Your task to perform on an android device: turn on showing notifications on the lock screen Image 0: 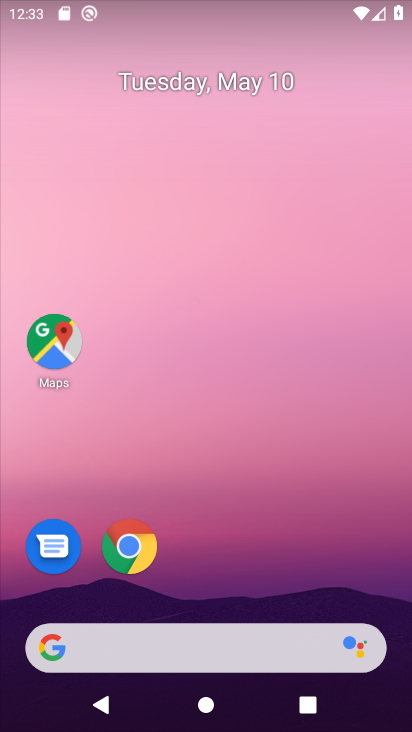
Step 0: click (299, 20)
Your task to perform on an android device: turn on showing notifications on the lock screen Image 1: 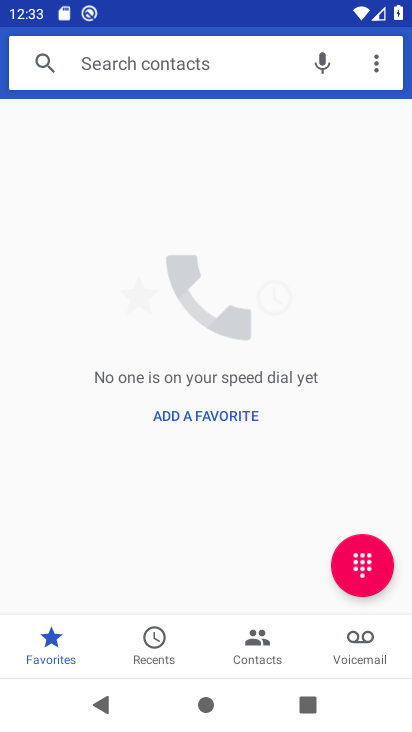
Step 1: press home button
Your task to perform on an android device: turn on showing notifications on the lock screen Image 2: 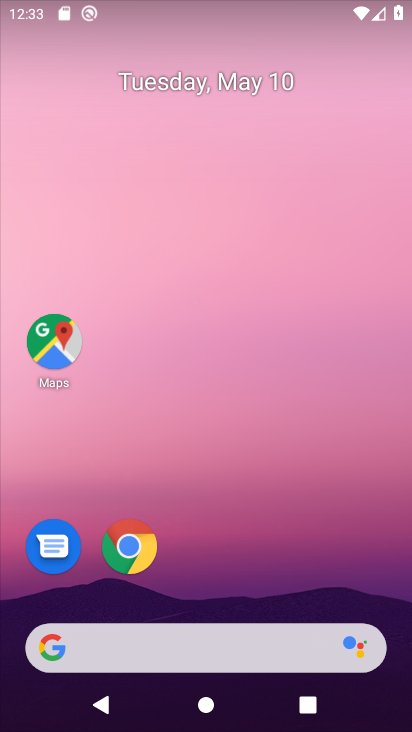
Step 2: drag from (250, 455) to (266, 175)
Your task to perform on an android device: turn on showing notifications on the lock screen Image 3: 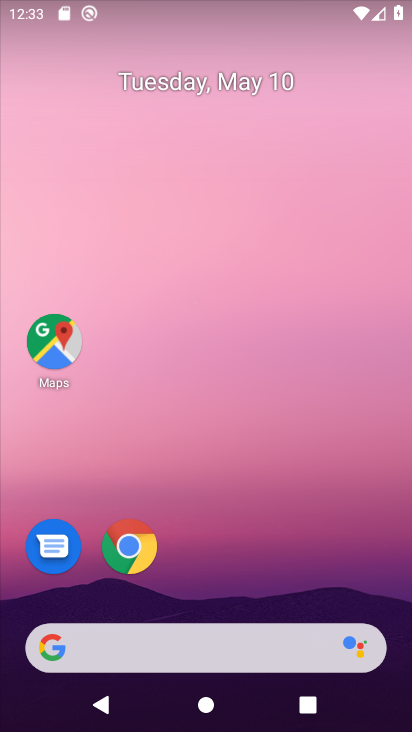
Step 3: drag from (283, 593) to (375, 92)
Your task to perform on an android device: turn on showing notifications on the lock screen Image 4: 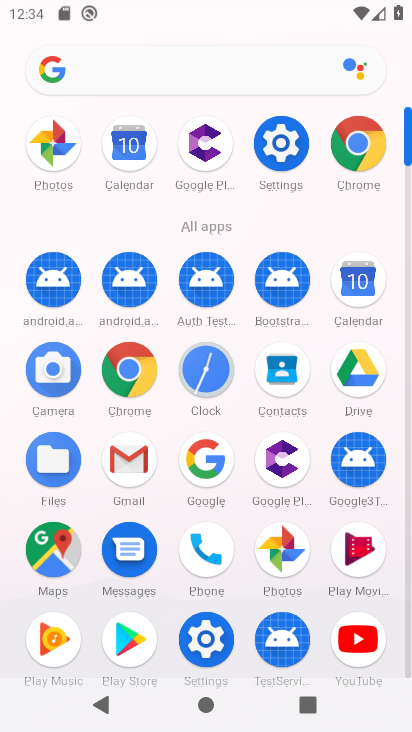
Step 4: click (202, 638)
Your task to perform on an android device: turn on showing notifications on the lock screen Image 5: 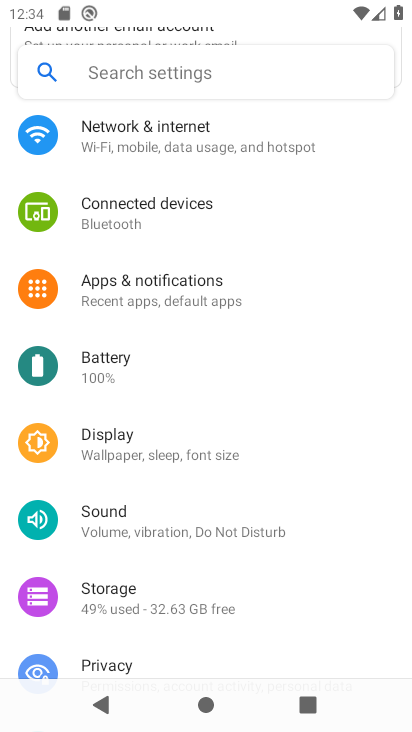
Step 5: click (261, 297)
Your task to perform on an android device: turn on showing notifications on the lock screen Image 6: 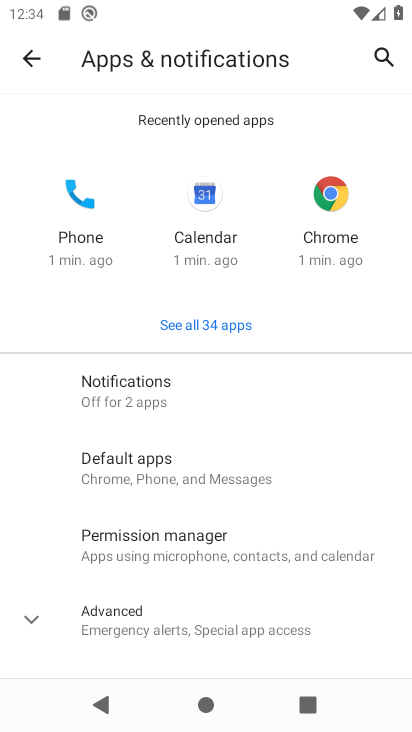
Step 6: click (201, 376)
Your task to perform on an android device: turn on showing notifications on the lock screen Image 7: 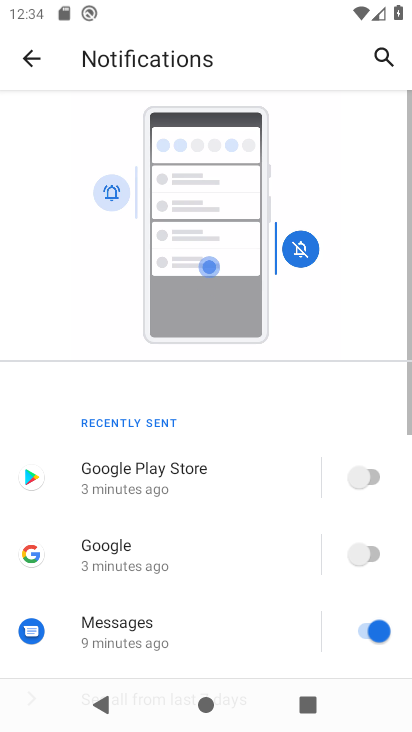
Step 7: drag from (204, 602) to (237, 150)
Your task to perform on an android device: turn on showing notifications on the lock screen Image 8: 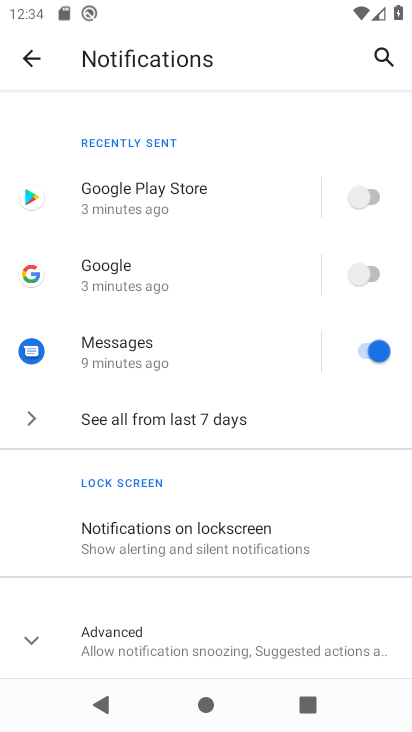
Step 8: click (186, 634)
Your task to perform on an android device: turn on showing notifications on the lock screen Image 9: 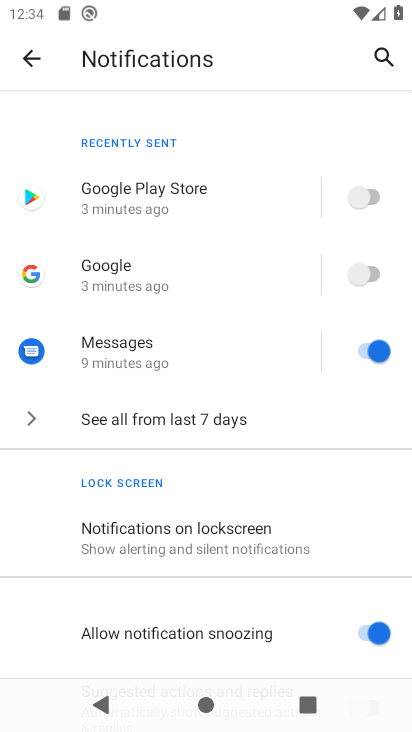
Step 9: drag from (221, 610) to (223, 267)
Your task to perform on an android device: turn on showing notifications on the lock screen Image 10: 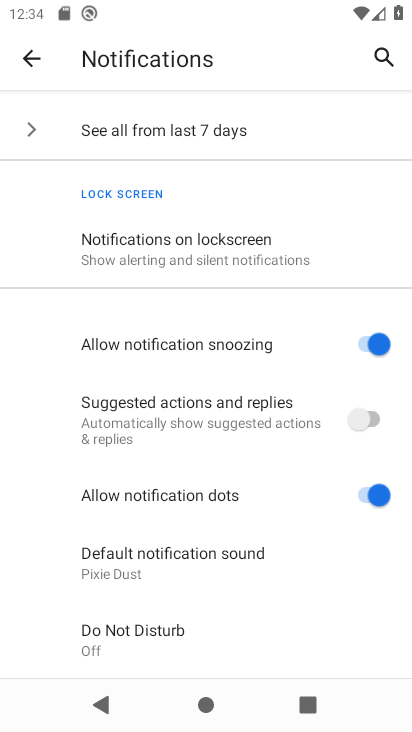
Step 10: click (246, 217)
Your task to perform on an android device: turn on showing notifications on the lock screen Image 11: 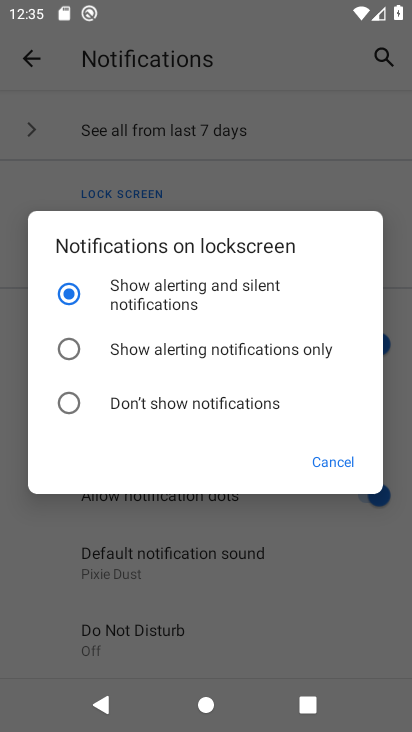
Step 11: click (210, 337)
Your task to perform on an android device: turn on showing notifications on the lock screen Image 12: 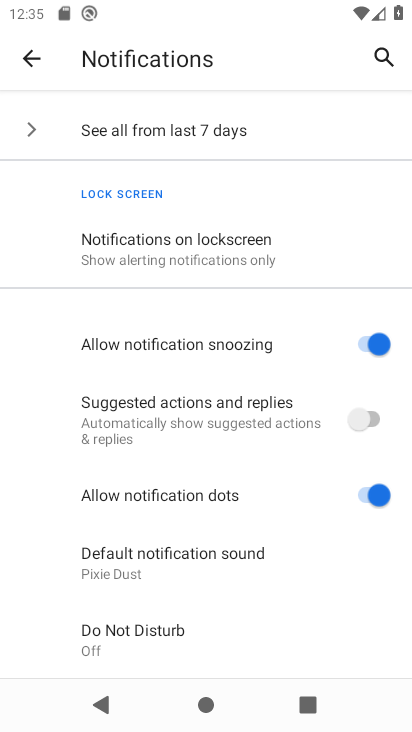
Step 12: task complete